Your task to perform on an android device: toggle translation in the chrome app Image 0: 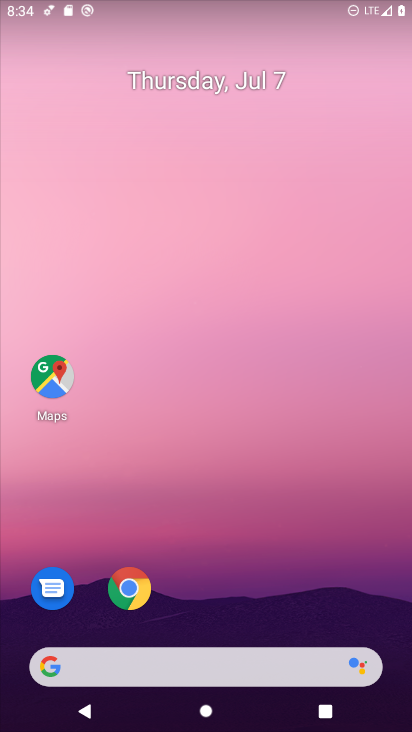
Step 0: click (128, 592)
Your task to perform on an android device: toggle translation in the chrome app Image 1: 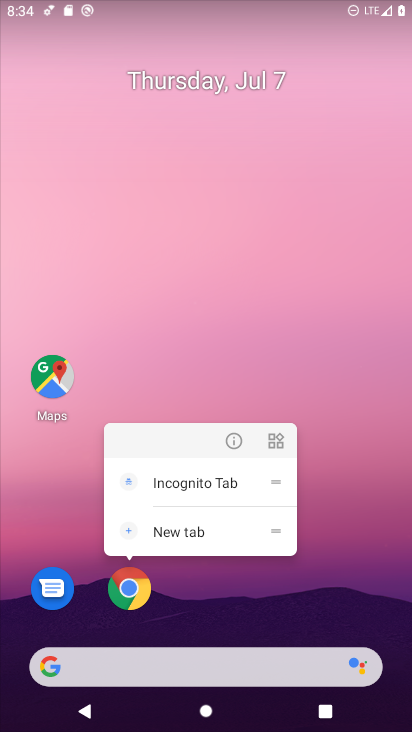
Step 1: click (132, 579)
Your task to perform on an android device: toggle translation in the chrome app Image 2: 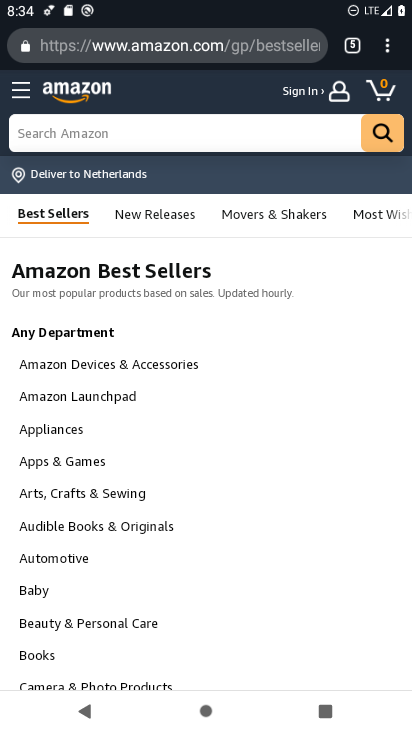
Step 2: click (402, 39)
Your task to perform on an android device: toggle translation in the chrome app Image 3: 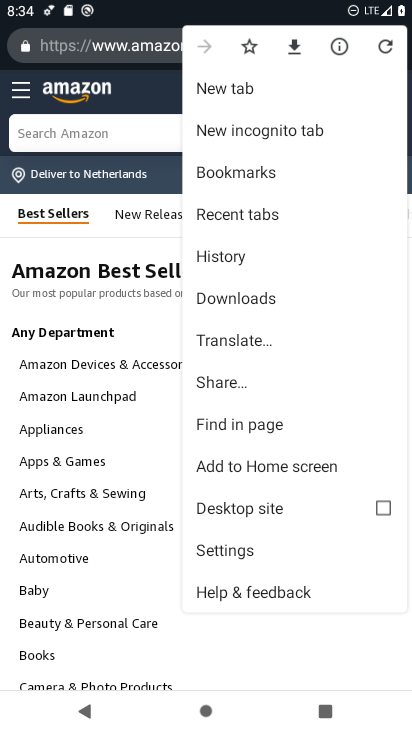
Step 3: click (239, 551)
Your task to perform on an android device: toggle translation in the chrome app Image 4: 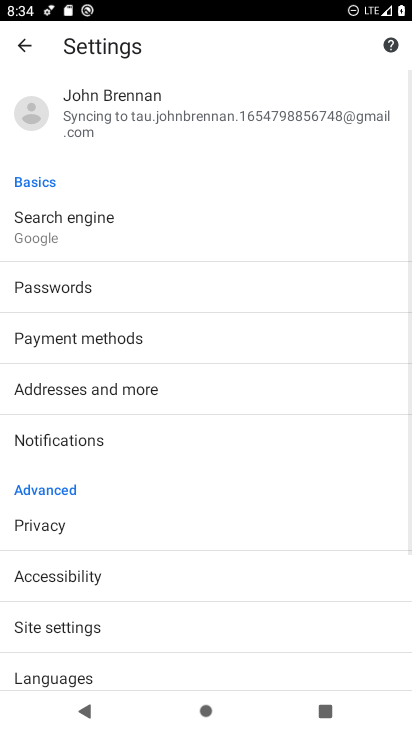
Step 4: drag from (218, 625) to (233, 214)
Your task to perform on an android device: toggle translation in the chrome app Image 5: 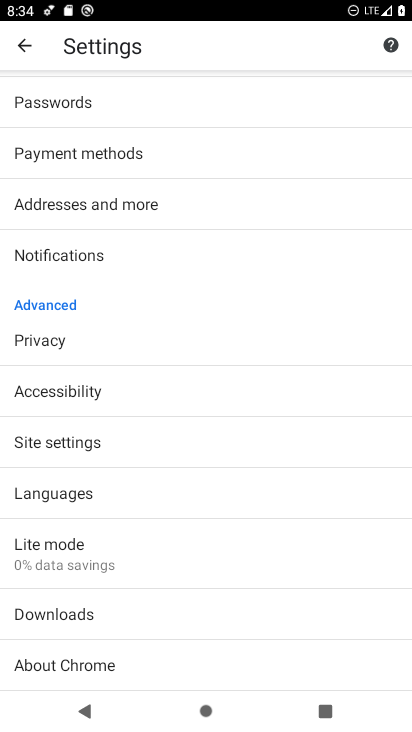
Step 5: click (144, 476)
Your task to perform on an android device: toggle translation in the chrome app Image 6: 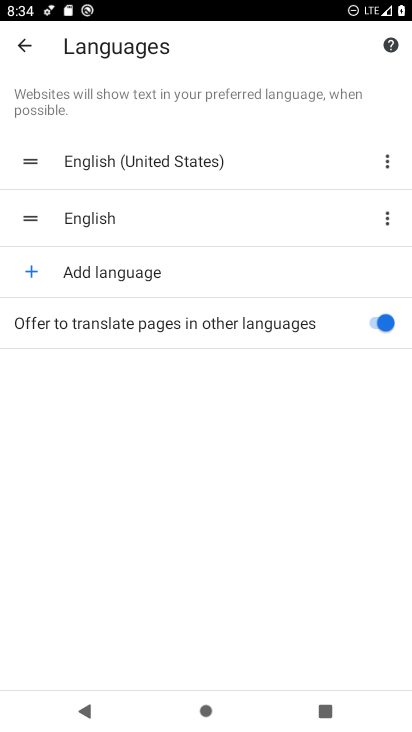
Step 6: click (387, 308)
Your task to perform on an android device: toggle translation in the chrome app Image 7: 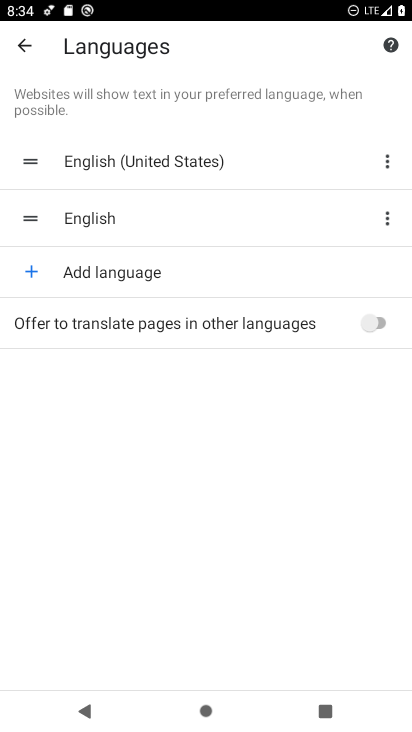
Step 7: task complete